Your task to perform on an android device: find snoozed emails in the gmail app Image 0: 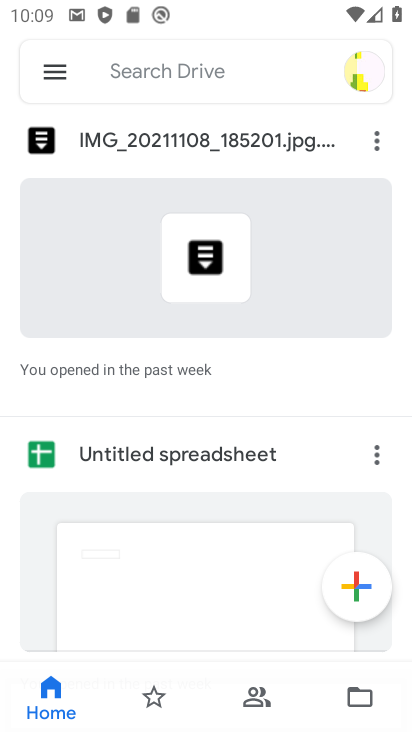
Step 0: press home button
Your task to perform on an android device: find snoozed emails in the gmail app Image 1: 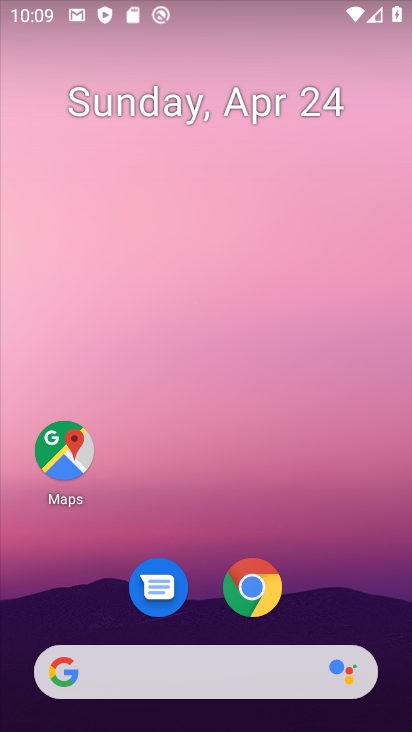
Step 1: drag from (337, 526) to (283, 17)
Your task to perform on an android device: find snoozed emails in the gmail app Image 2: 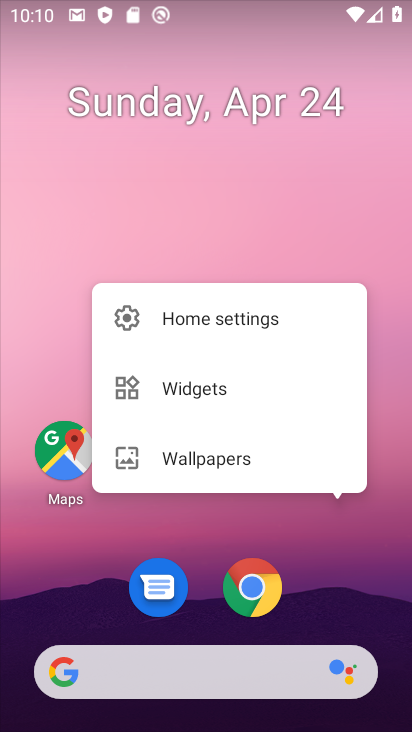
Step 2: click (346, 227)
Your task to perform on an android device: find snoozed emails in the gmail app Image 3: 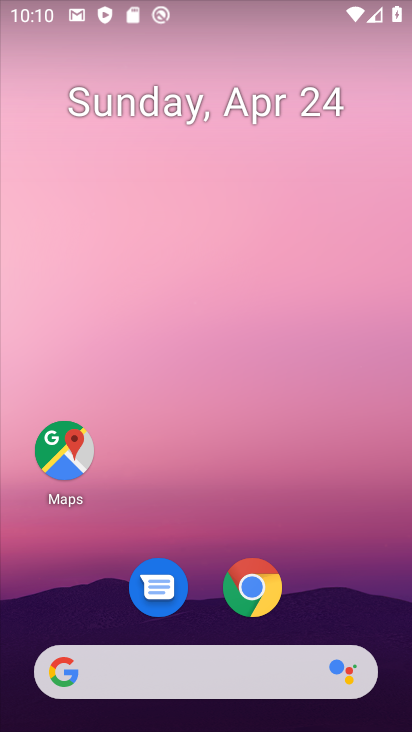
Step 3: drag from (342, 599) to (248, 44)
Your task to perform on an android device: find snoozed emails in the gmail app Image 4: 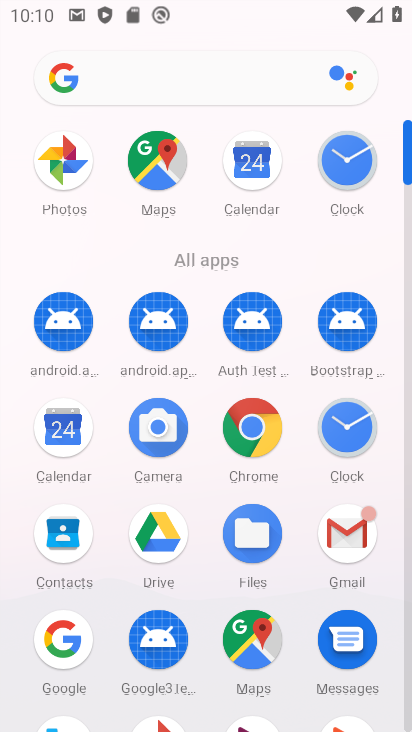
Step 4: click (352, 539)
Your task to perform on an android device: find snoozed emails in the gmail app Image 5: 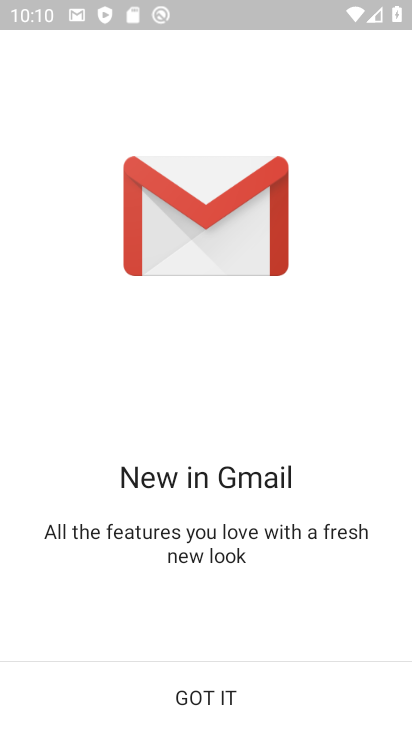
Step 5: click (239, 705)
Your task to perform on an android device: find snoozed emails in the gmail app Image 6: 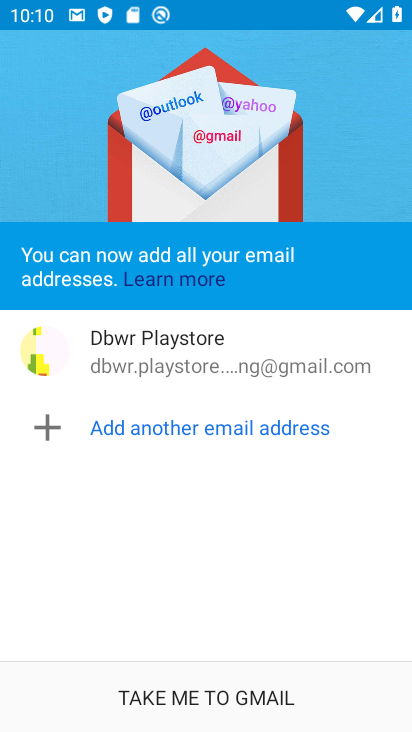
Step 6: click (223, 683)
Your task to perform on an android device: find snoozed emails in the gmail app Image 7: 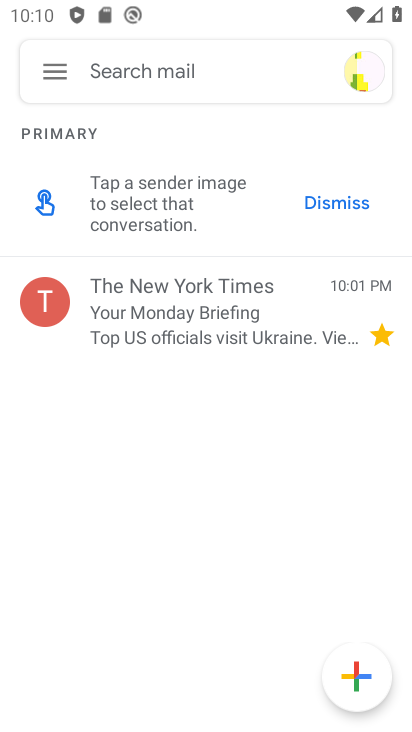
Step 7: click (38, 59)
Your task to perform on an android device: find snoozed emails in the gmail app Image 8: 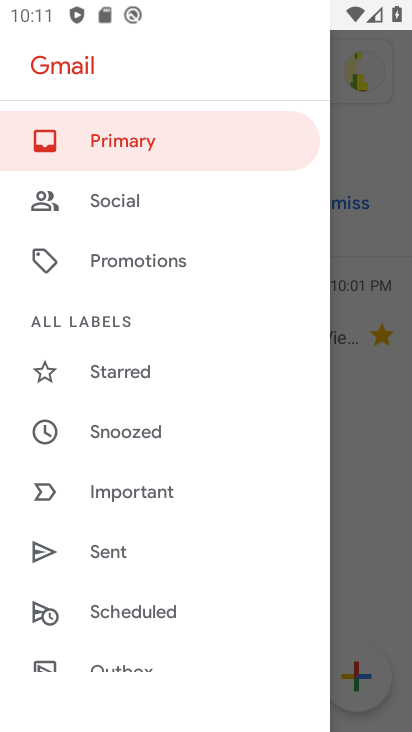
Step 8: drag from (202, 615) to (161, 311)
Your task to perform on an android device: find snoozed emails in the gmail app Image 9: 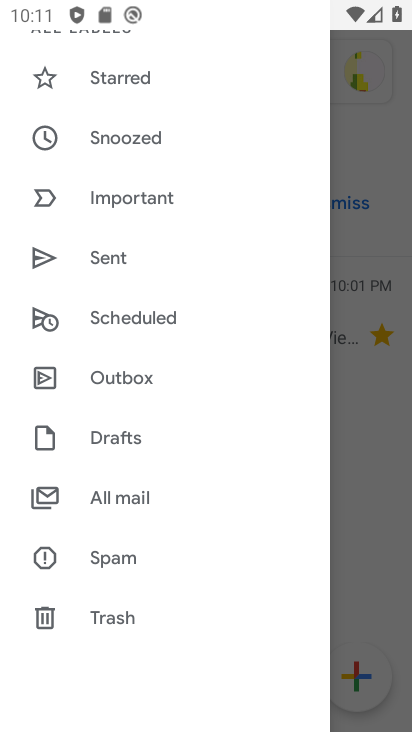
Step 9: click (164, 143)
Your task to perform on an android device: find snoozed emails in the gmail app Image 10: 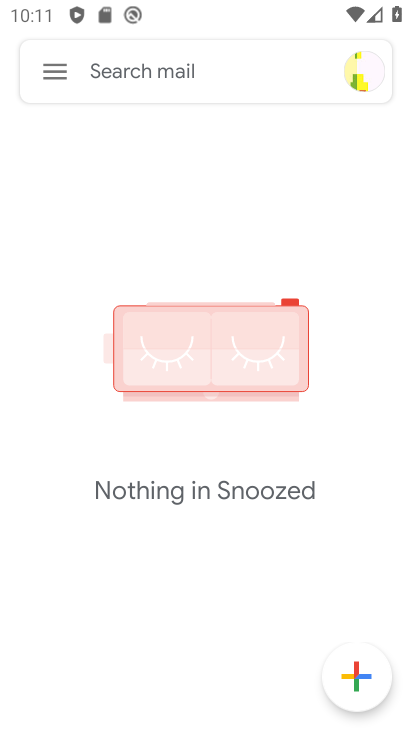
Step 10: task complete